Your task to perform on an android device: Do I have any events this weekend? Image 0: 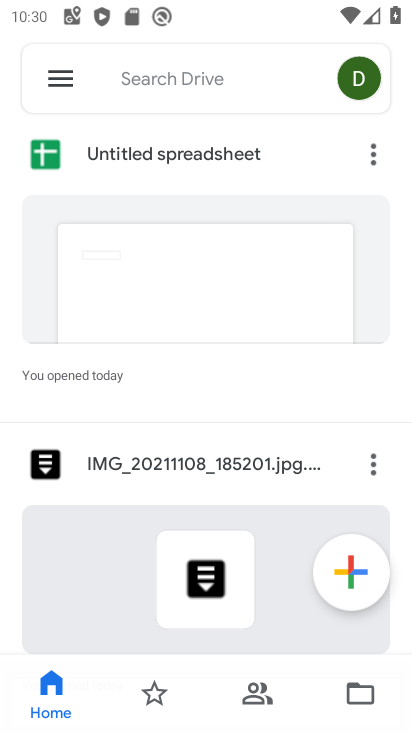
Step 0: press home button
Your task to perform on an android device: Do I have any events this weekend? Image 1: 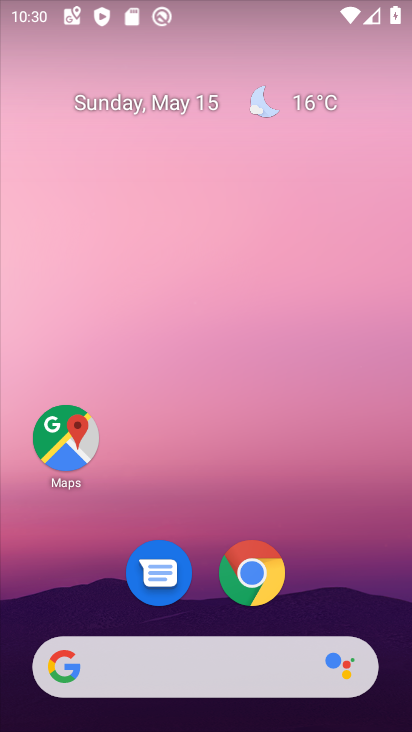
Step 1: drag from (339, 580) to (334, 104)
Your task to perform on an android device: Do I have any events this weekend? Image 2: 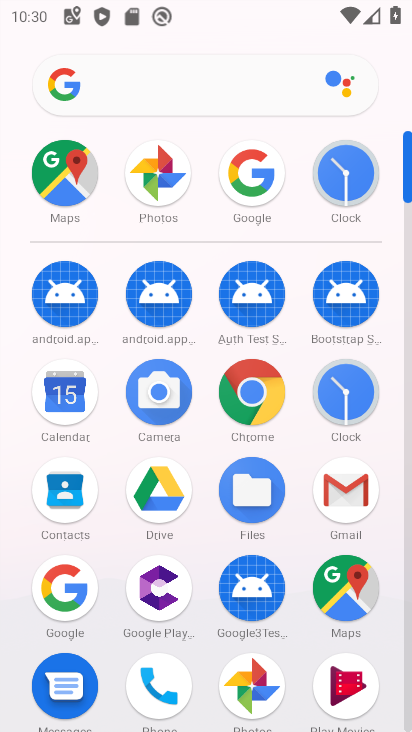
Step 2: click (47, 398)
Your task to perform on an android device: Do I have any events this weekend? Image 3: 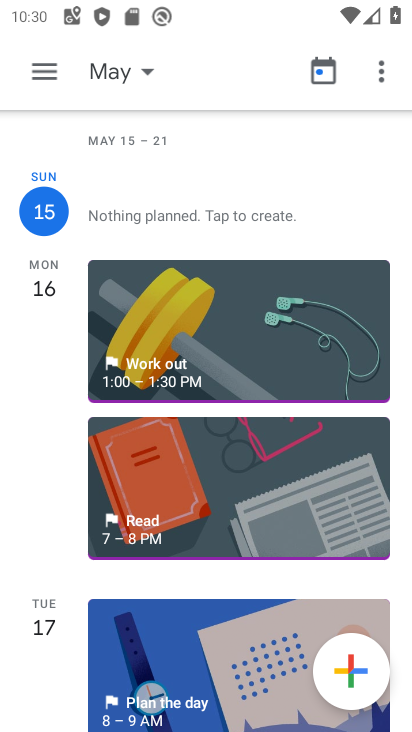
Step 3: click (117, 71)
Your task to perform on an android device: Do I have any events this weekend? Image 4: 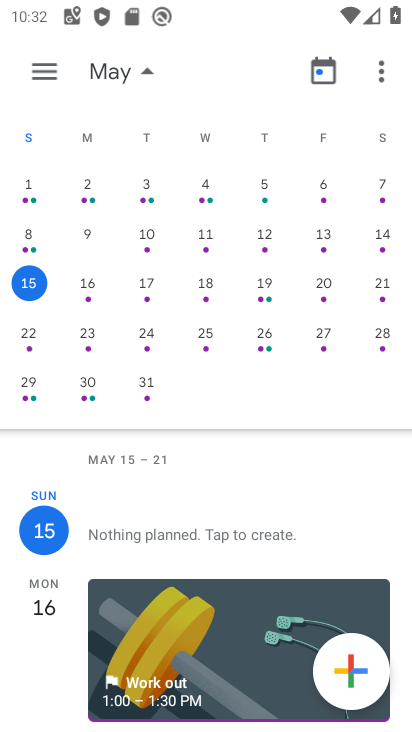
Step 4: click (136, 86)
Your task to perform on an android device: Do I have any events this weekend? Image 5: 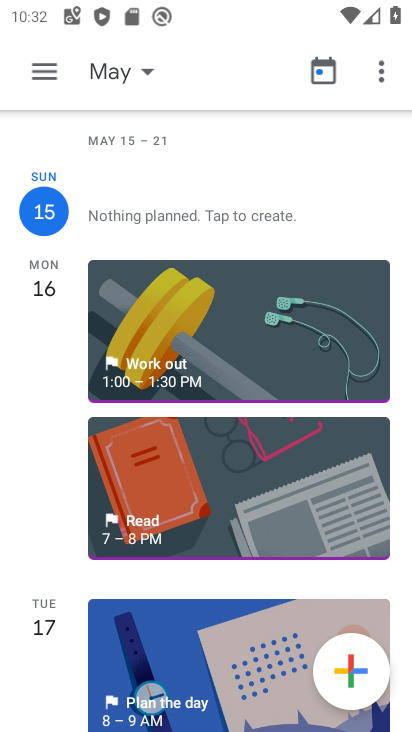
Step 5: task complete